Your task to perform on an android device: turn vacation reply on in the gmail app Image 0: 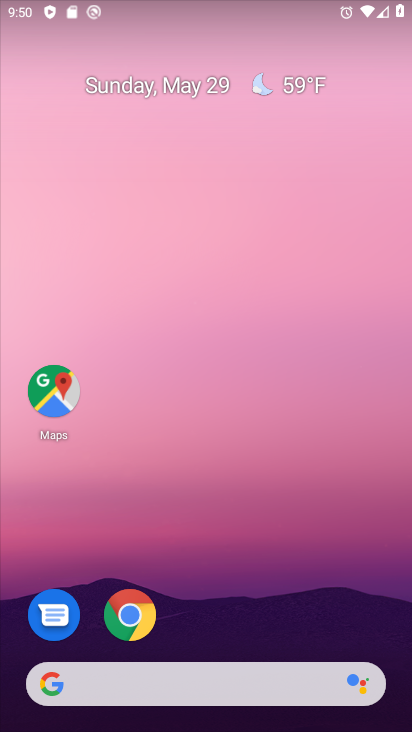
Step 0: drag from (238, 592) to (241, 138)
Your task to perform on an android device: turn vacation reply on in the gmail app Image 1: 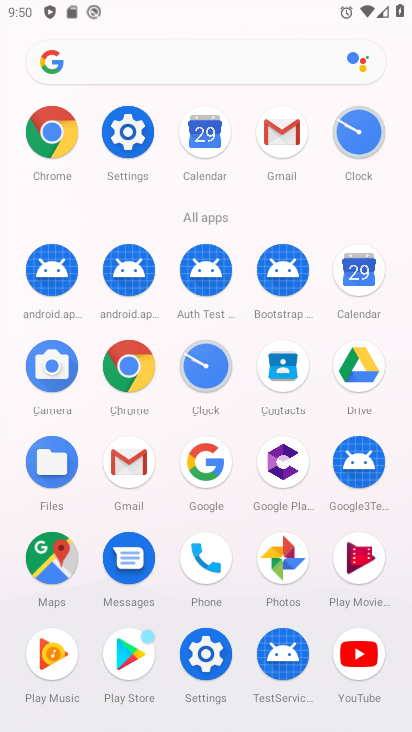
Step 1: click (270, 128)
Your task to perform on an android device: turn vacation reply on in the gmail app Image 2: 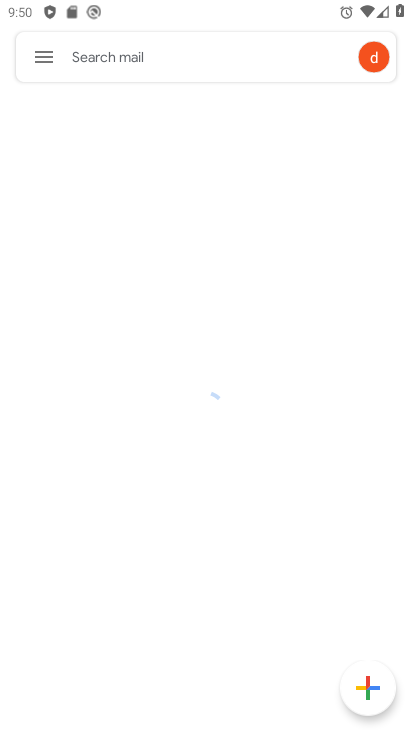
Step 2: click (37, 51)
Your task to perform on an android device: turn vacation reply on in the gmail app Image 3: 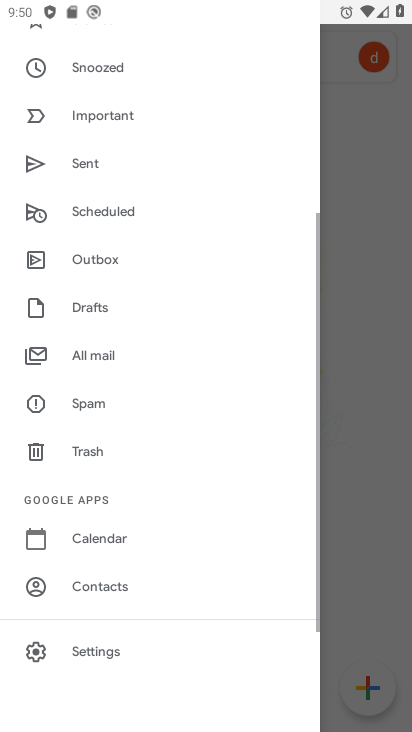
Step 3: click (140, 646)
Your task to perform on an android device: turn vacation reply on in the gmail app Image 4: 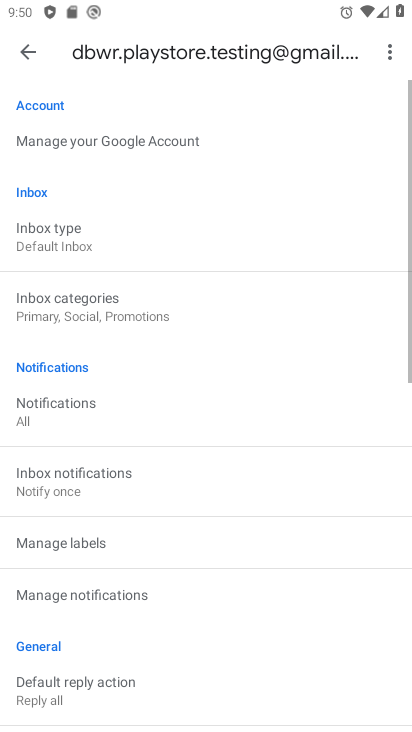
Step 4: drag from (150, 584) to (174, 195)
Your task to perform on an android device: turn vacation reply on in the gmail app Image 5: 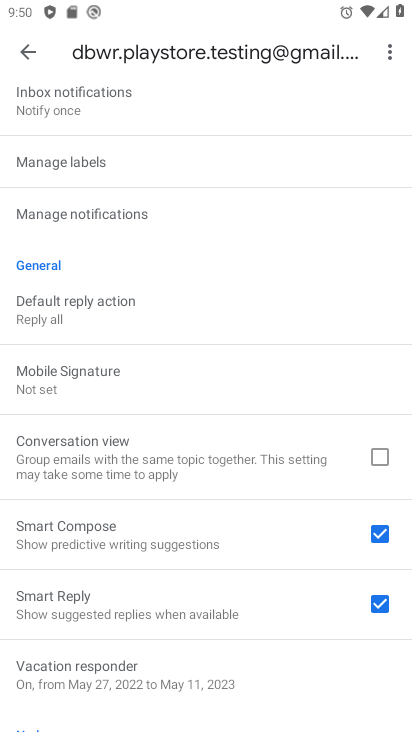
Step 5: drag from (117, 659) to (151, 456)
Your task to perform on an android device: turn vacation reply on in the gmail app Image 6: 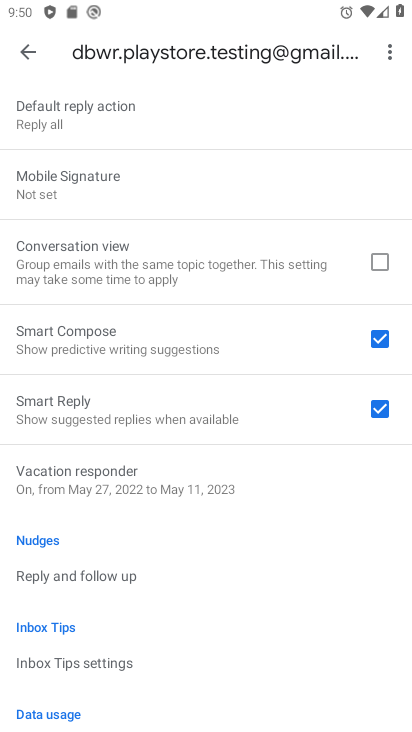
Step 6: click (148, 468)
Your task to perform on an android device: turn vacation reply on in the gmail app Image 7: 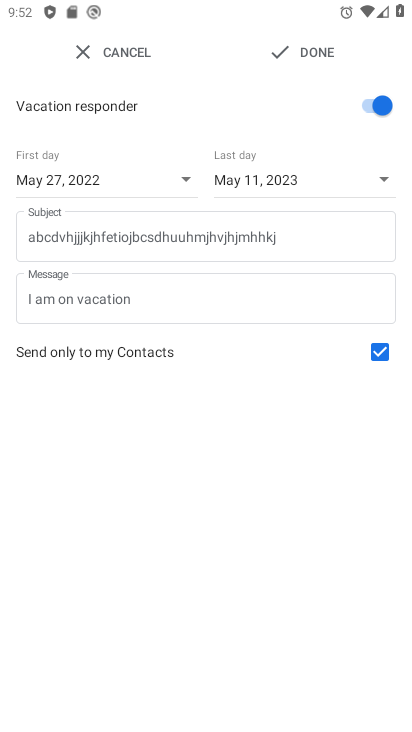
Step 7: task complete